Your task to perform on an android device: Go to location settings Image 0: 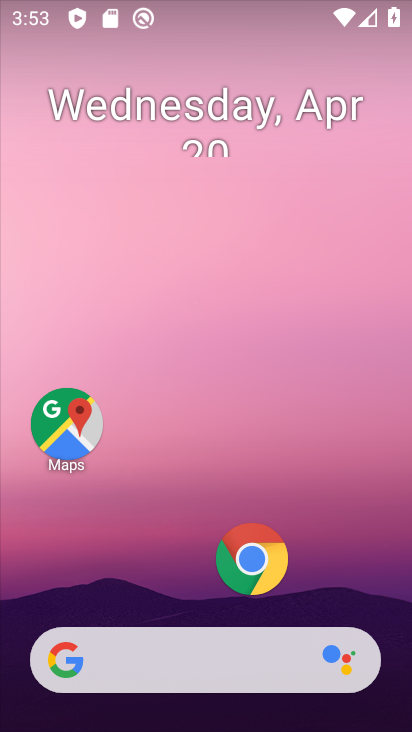
Step 0: drag from (99, 606) to (156, 181)
Your task to perform on an android device: Go to location settings Image 1: 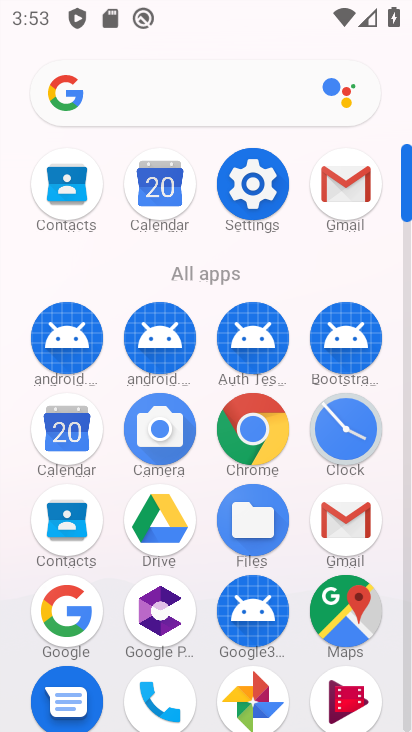
Step 1: click (245, 178)
Your task to perform on an android device: Go to location settings Image 2: 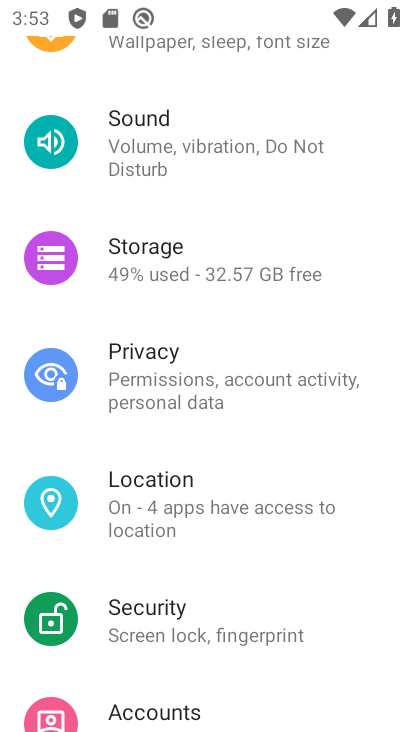
Step 2: click (214, 504)
Your task to perform on an android device: Go to location settings Image 3: 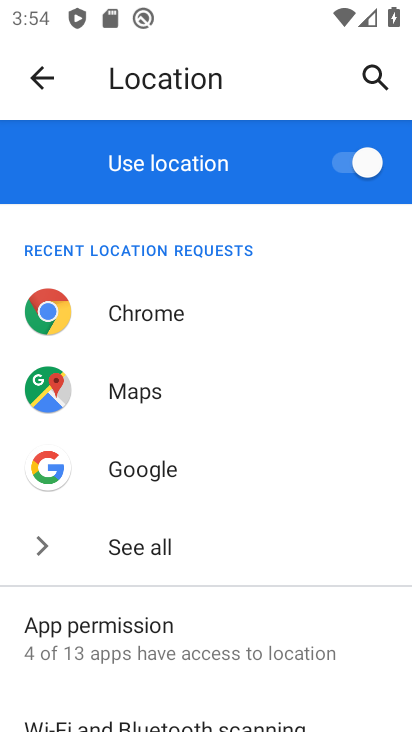
Step 3: task complete